Your task to perform on an android device: turn pop-ups on in chrome Image 0: 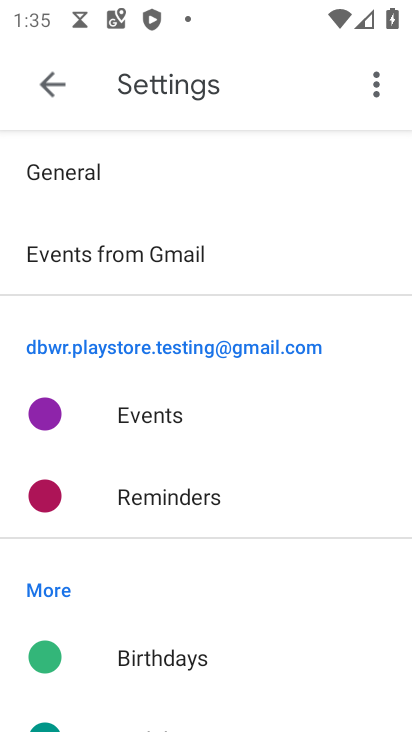
Step 0: press home button
Your task to perform on an android device: turn pop-ups on in chrome Image 1: 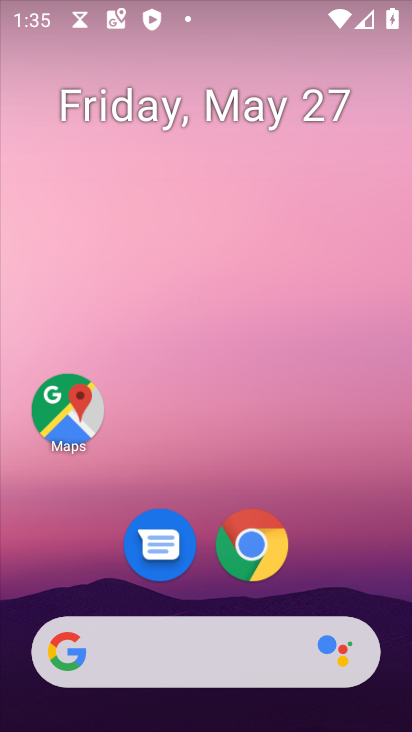
Step 1: drag from (358, 572) to (260, 42)
Your task to perform on an android device: turn pop-ups on in chrome Image 2: 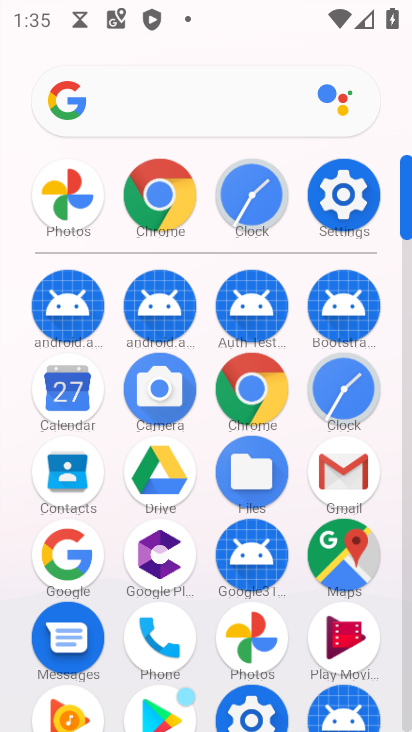
Step 2: click (259, 381)
Your task to perform on an android device: turn pop-ups on in chrome Image 3: 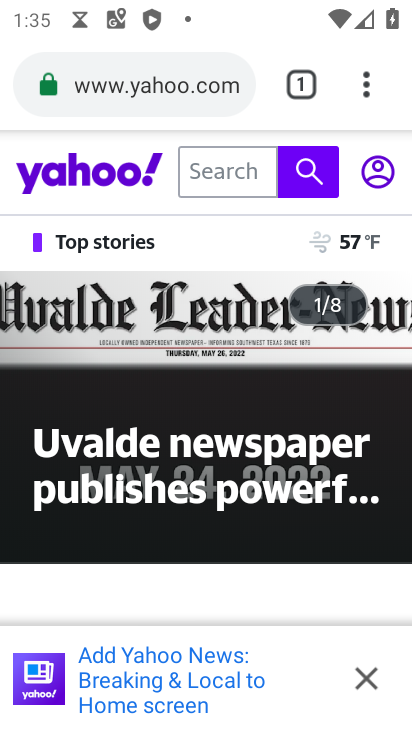
Step 3: click (361, 82)
Your task to perform on an android device: turn pop-ups on in chrome Image 4: 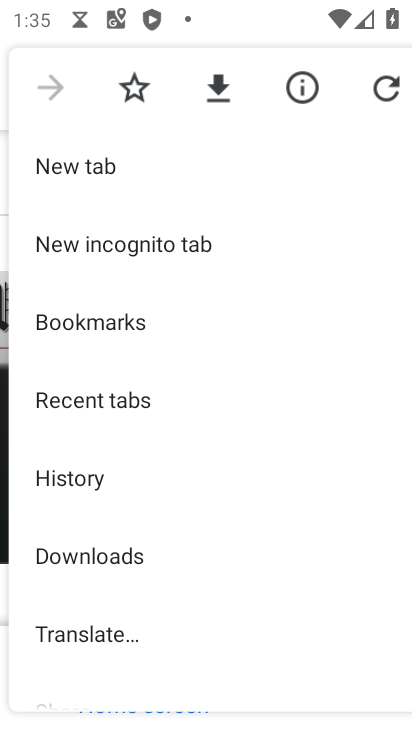
Step 4: drag from (230, 561) to (207, 103)
Your task to perform on an android device: turn pop-ups on in chrome Image 5: 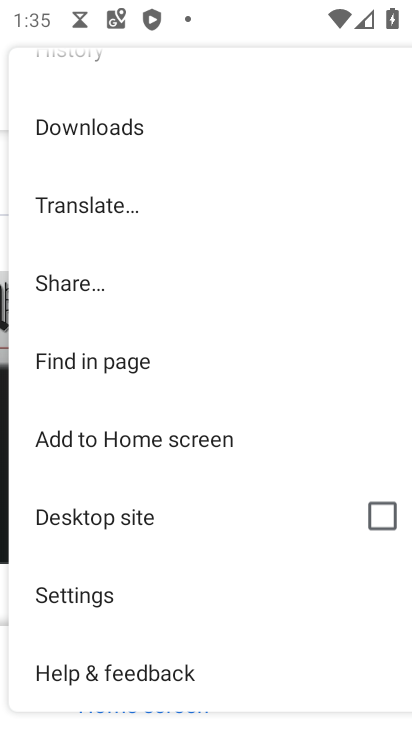
Step 5: drag from (207, 558) to (206, 162)
Your task to perform on an android device: turn pop-ups on in chrome Image 6: 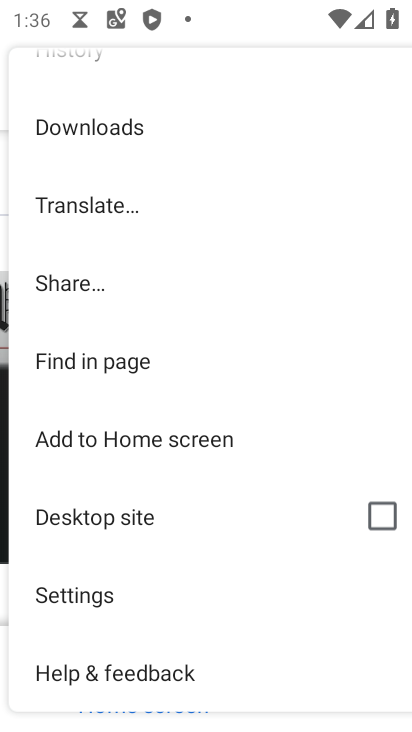
Step 6: click (192, 593)
Your task to perform on an android device: turn pop-ups on in chrome Image 7: 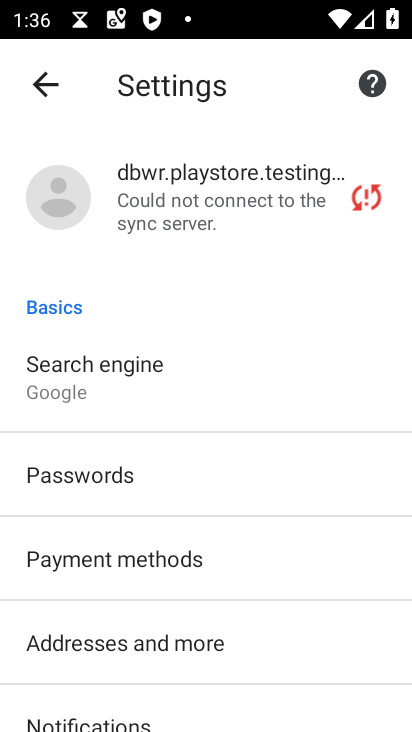
Step 7: drag from (181, 587) to (213, 152)
Your task to perform on an android device: turn pop-ups on in chrome Image 8: 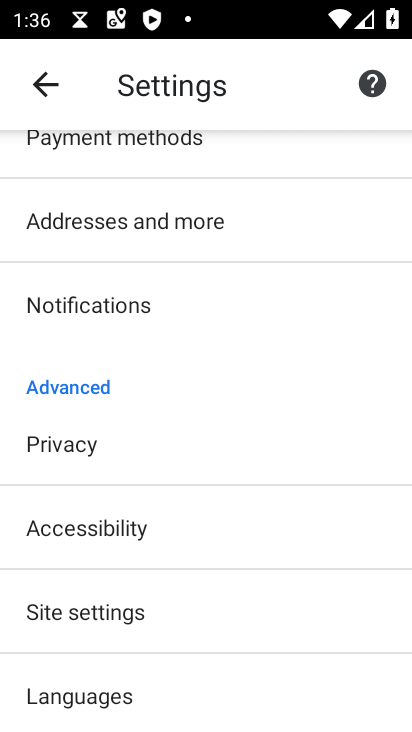
Step 8: click (210, 606)
Your task to perform on an android device: turn pop-ups on in chrome Image 9: 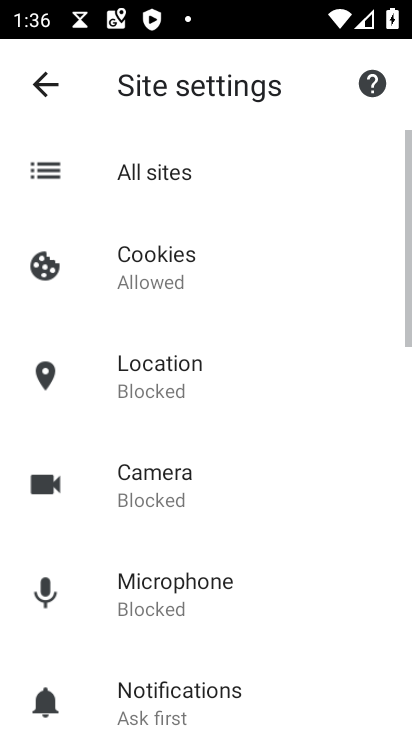
Step 9: drag from (225, 545) to (209, 194)
Your task to perform on an android device: turn pop-ups on in chrome Image 10: 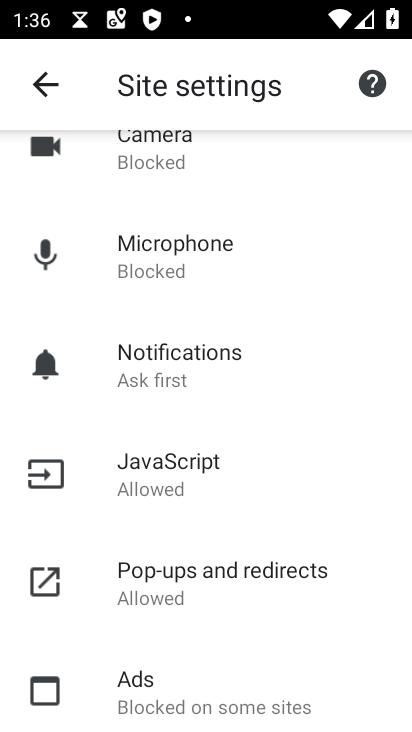
Step 10: click (212, 566)
Your task to perform on an android device: turn pop-ups on in chrome Image 11: 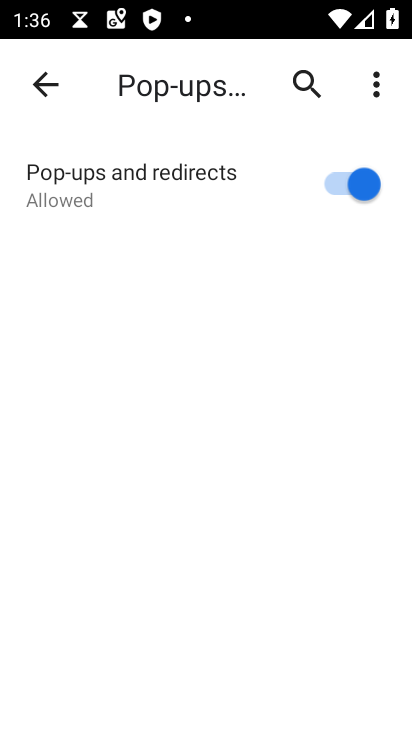
Step 11: task complete